Your task to perform on an android device: Check the news Image 0: 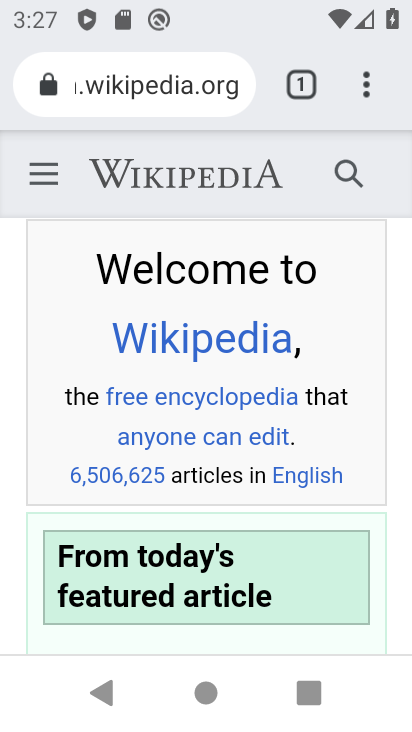
Step 0: press home button
Your task to perform on an android device: Check the news Image 1: 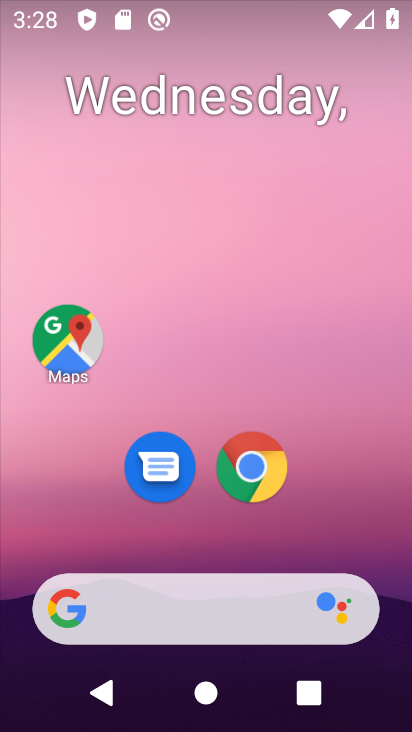
Step 1: drag from (286, 531) to (251, 2)
Your task to perform on an android device: Check the news Image 2: 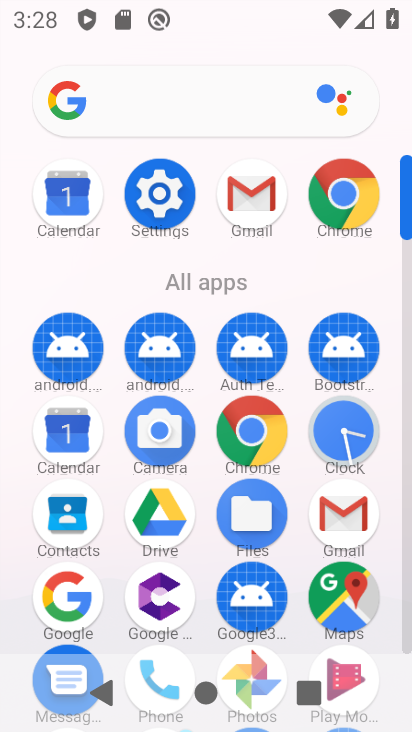
Step 2: click (77, 605)
Your task to perform on an android device: Check the news Image 3: 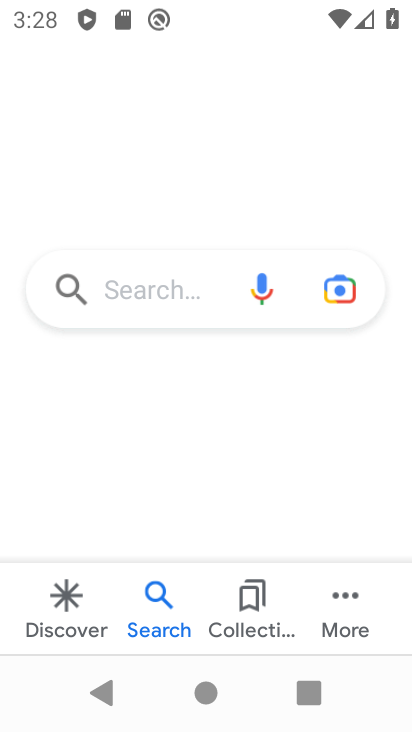
Step 3: click (154, 301)
Your task to perform on an android device: Check the news Image 4: 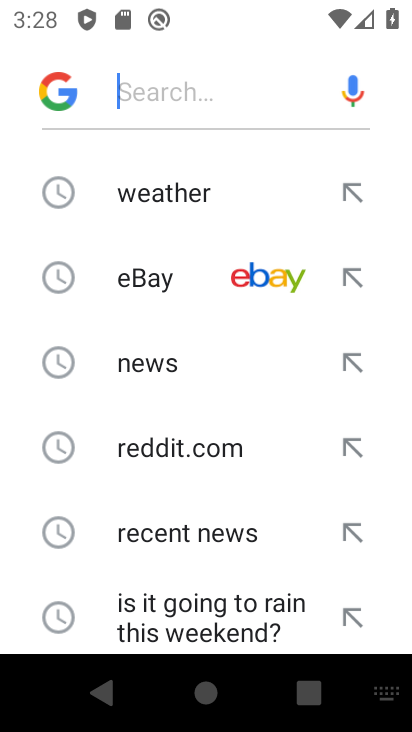
Step 4: click (191, 371)
Your task to perform on an android device: Check the news Image 5: 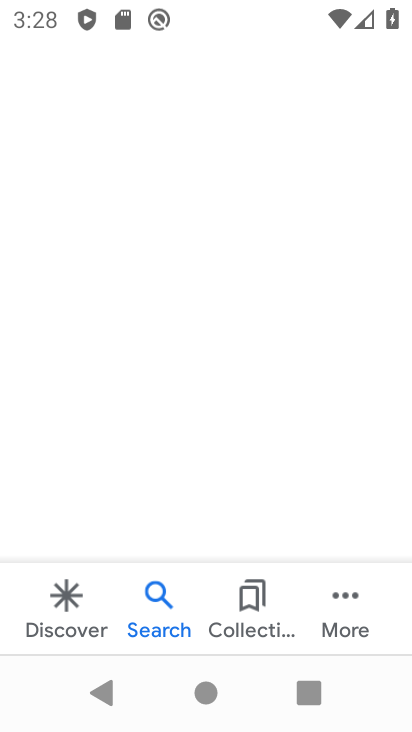
Step 5: task complete